Your task to perform on an android device: Search for the best fantasy books on Goodreads. Image 0: 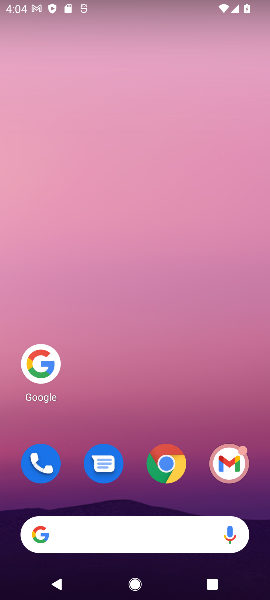
Step 0: click (39, 355)
Your task to perform on an android device: Search for the best fantasy books on Goodreads. Image 1: 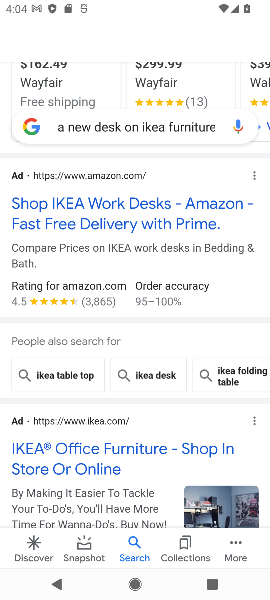
Step 1: click (156, 119)
Your task to perform on an android device: Search for the best fantasy books on Goodreads. Image 2: 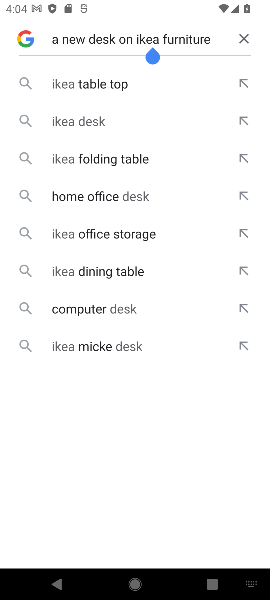
Step 2: click (246, 42)
Your task to perform on an android device: Search for the best fantasy books on Goodreads. Image 3: 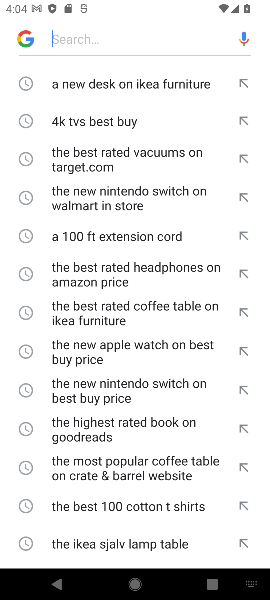
Step 3: click (154, 40)
Your task to perform on an android device: Search for the best fantasy books on Goodreads. Image 4: 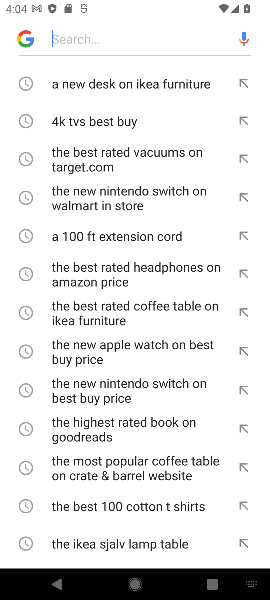
Step 4: type "the best fantasy books on Goodreads "
Your task to perform on an android device: Search for the best fantasy books on Goodreads. Image 5: 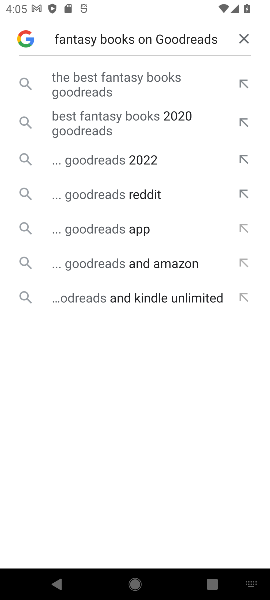
Step 5: click (132, 84)
Your task to perform on an android device: Search for the best fantasy books on Goodreads. Image 6: 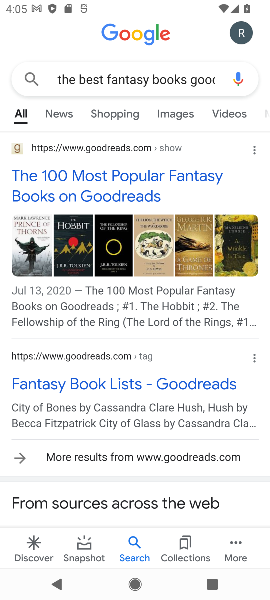
Step 6: drag from (152, 481) to (172, 256)
Your task to perform on an android device: Search for the best fantasy books on Goodreads. Image 7: 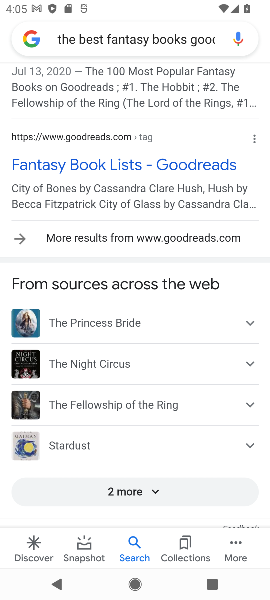
Step 7: click (131, 162)
Your task to perform on an android device: Search for the best fantasy books on Goodreads. Image 8: 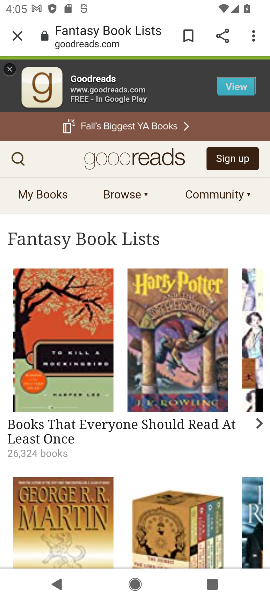
Step 8: task complete